Your task to perform on an android device: Clear the shopping cart on walmart. Search for "razer blade" on walmart, select the first entry, add it to the cart, then select checkout. Image 0: 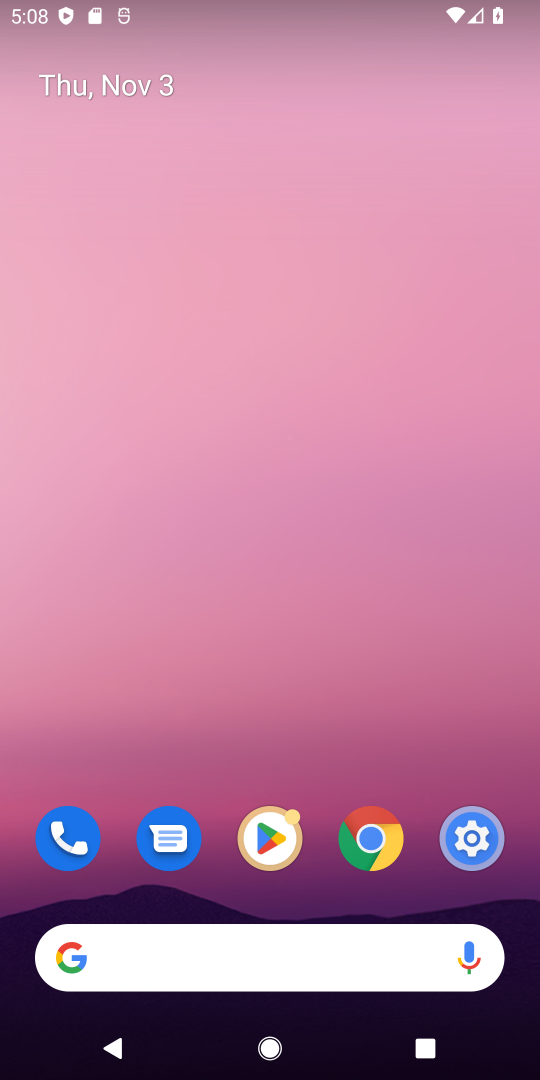
Step 0: click (351, 841)
Your task to perform on an android device: Clear the shopping cart on walmart. Search for "razer blade" on walmart, select the first entry, add it to the cart, then select checkout. Image 1: 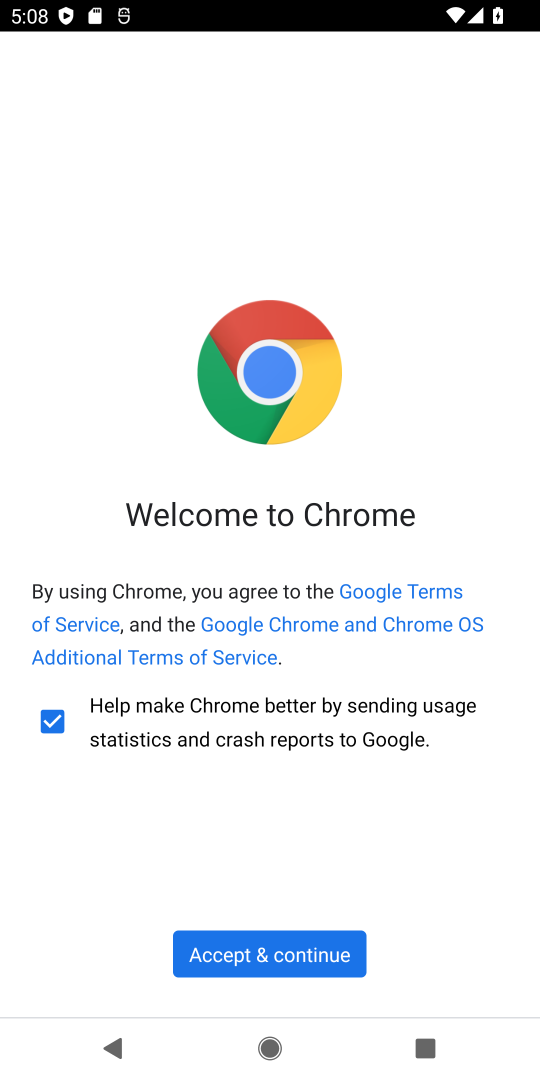
Step 1: click (282, 945)
Your task to perform on an android device: Clear the shopping cart on walmart. Search for "razer blade" on walmart, select the first entry, add it to the cart, then select checkout. Image 2: 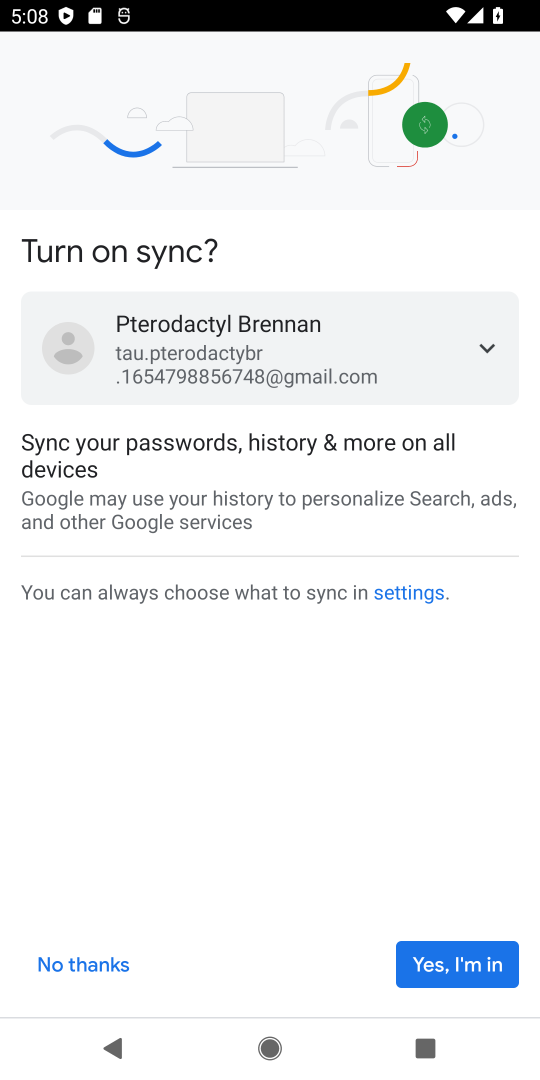
Step 2: click (447, 950)
Your task to perform on an android device: Clear the shopping cart on walmart. Search for "razer blade" on walmart, select the first entry, add it to the cart, then select checkout. Image 3: 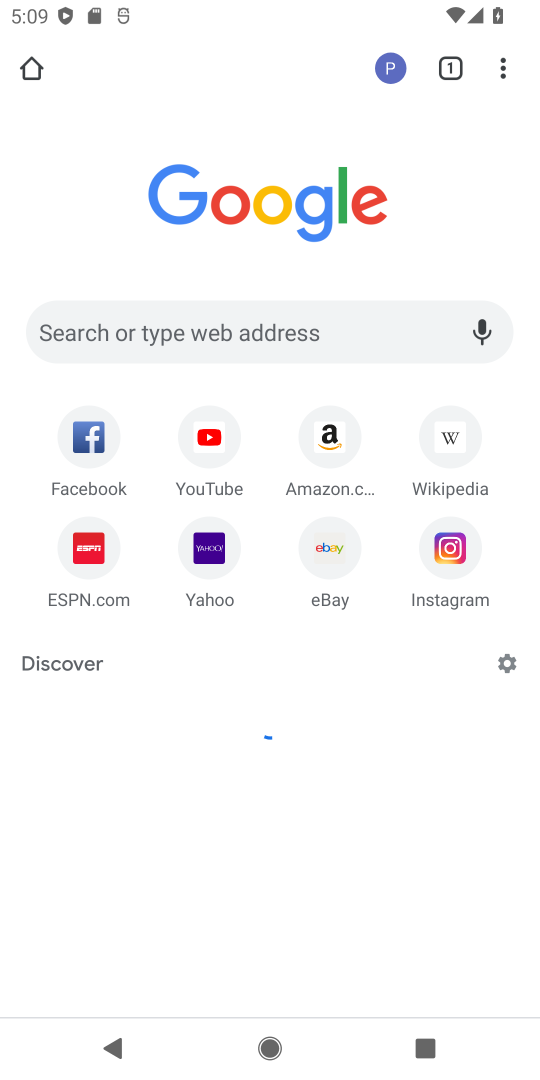
Step 3: click (233, 319)
Your task to perform on an android device: Clear the shopping cart on walmart. Search for "razer blade" on walmart, select the first entry, add it to the cart, then select checkout. Image 4: 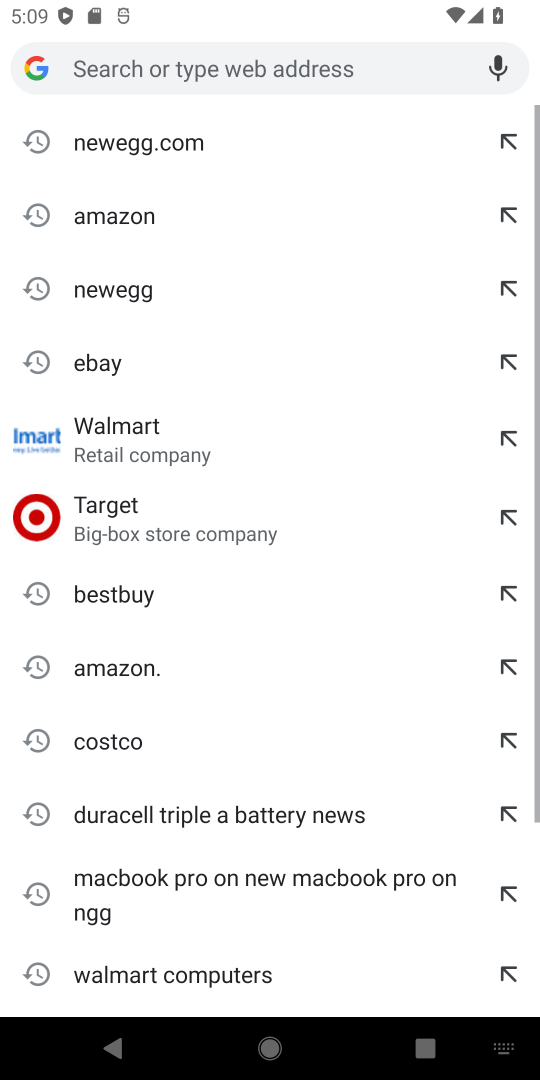
Step 4: type "walmart"
Your task to perform on an android device: Clear the shopping cart on walmart. Search for "razer blade" on walmart, select the first entry, add it to the cart, then select checkout. Image 5: 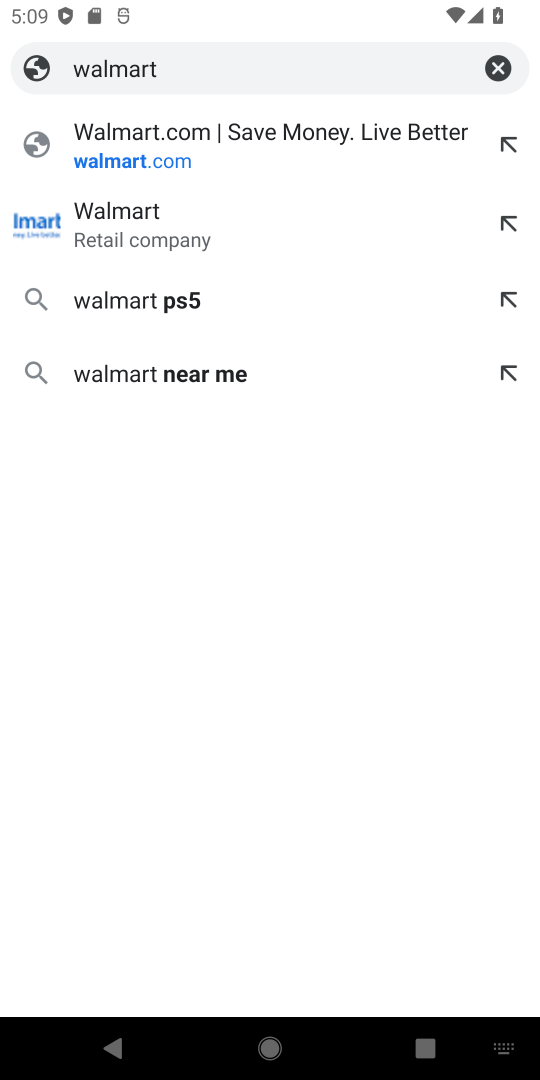
Step 5: click (149, 140)
Your task to perform on an android device: Clear the shopping cart on walmart. Search for "razer blade" on walmart, select the first entry, add it to the cart, then select checkout. Image 6: 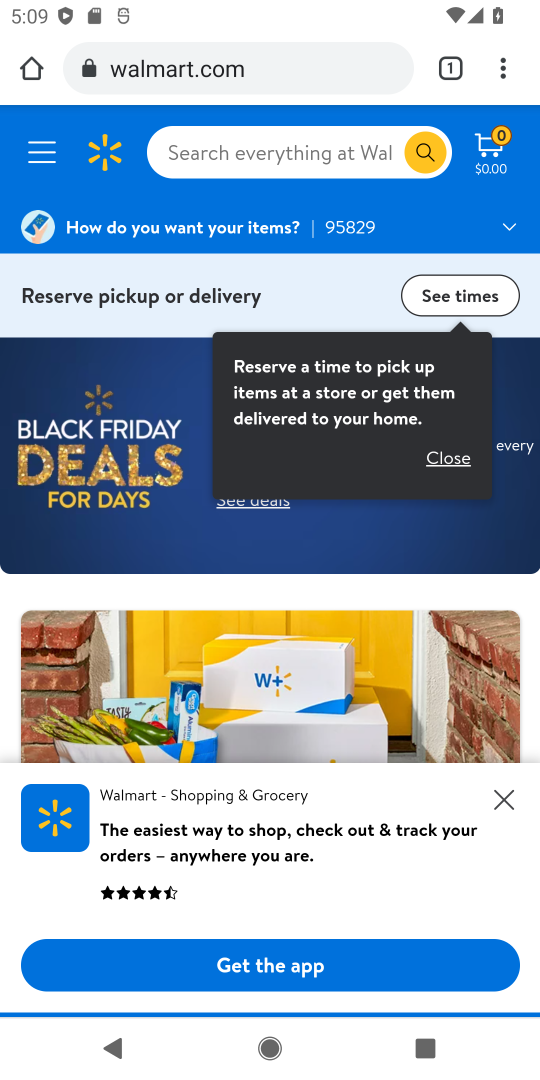
Step 6: click (221, 151)
Your task to perform on an android device: Clear the shopping cart on walmart. Search for "razer blade" on walmart, select the first entry, add it to the cart, then select checkout. Image 7: 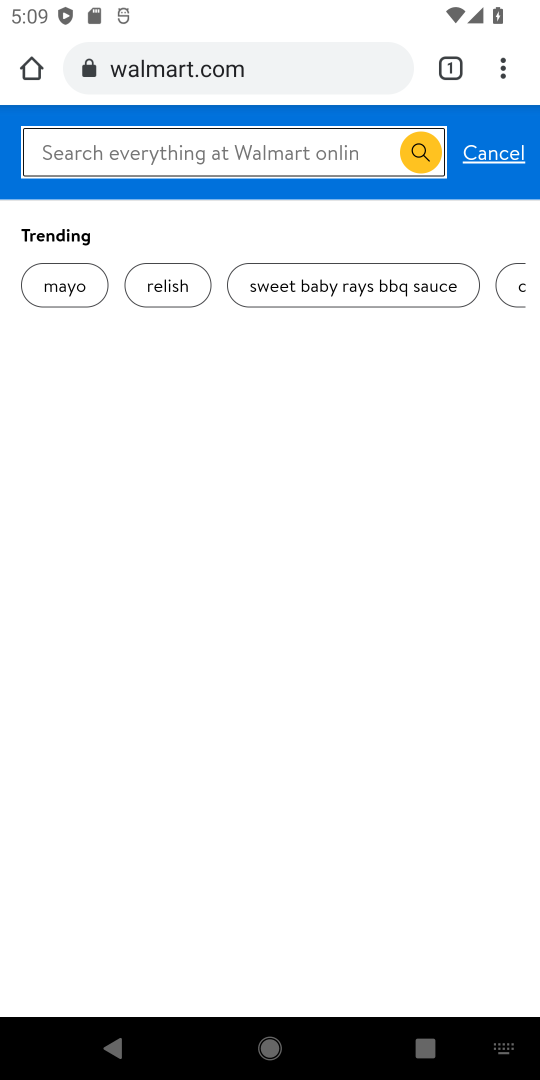
Step 7: type "razer blade"
Your task to perform on an android device: Clear the shopping cart on walmart. Search for "razer blade" on walmart, select the first entry, add it to the cart, then select checkout. Image 8: 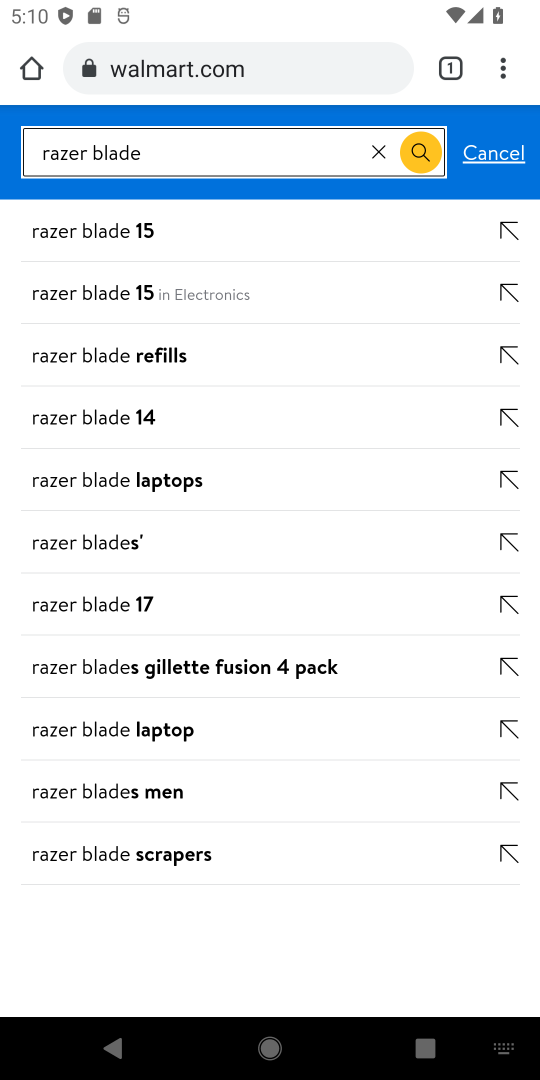
Step 8: click (119, 296)
Your task to perform on an android device: Clear the shopping cart on walmart. Search for "razer blade" on walmart, select the first entry, add it to the cart, then select checkout. Image 9: 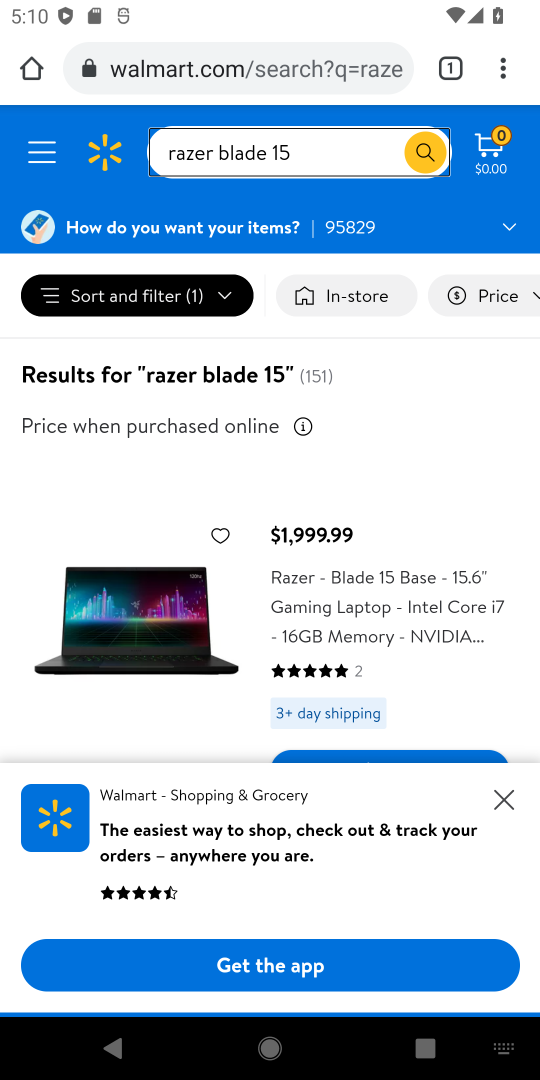
Step 9: click (496, 803)
Your task to perform on an android device: Clear the shopping cart on walmart. Search for "razer blade" on walmart, select the first entry, add it to the cart, then select checkout. Image 10: 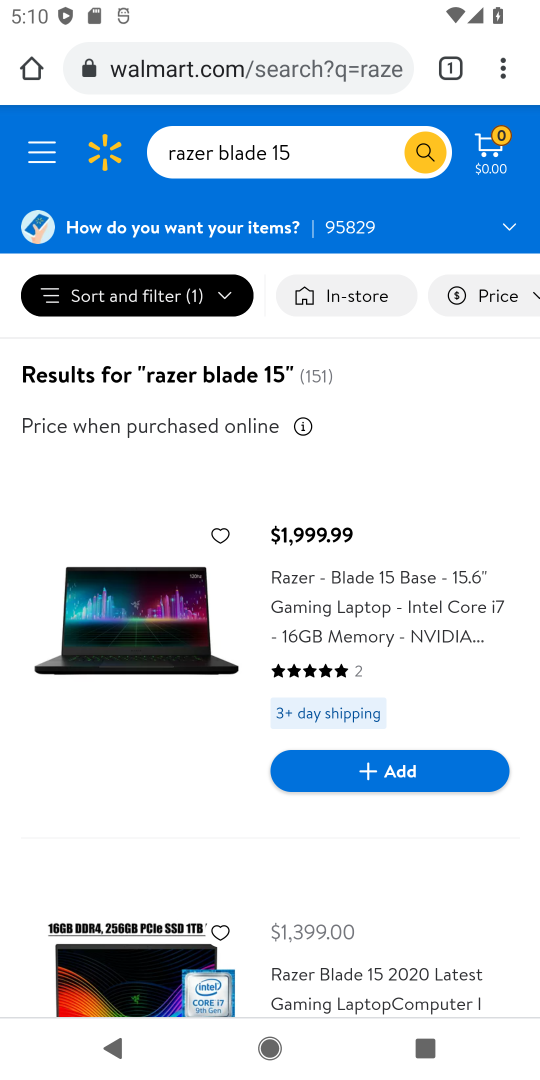
Step 10: click (434, 778)
Your task to perform on an android device: Clear the shopping cart on walmart. Search for "razer blade" on walmart, select the first entry, add it to the cart, then select checkout. Image 11: 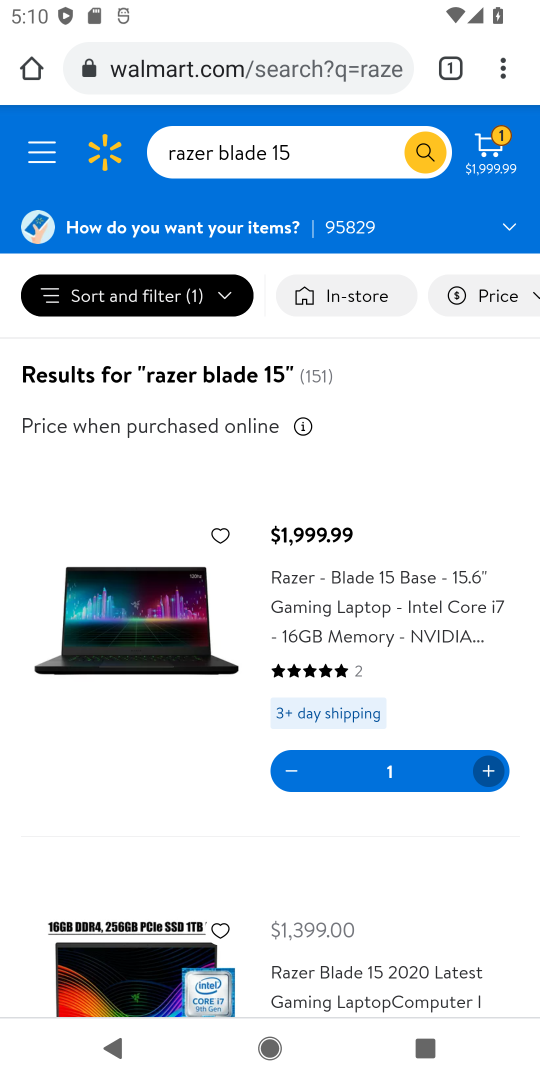
Step 11: task complete